Your task to perform on an android device: toggle translation in the chrome app Image 0: 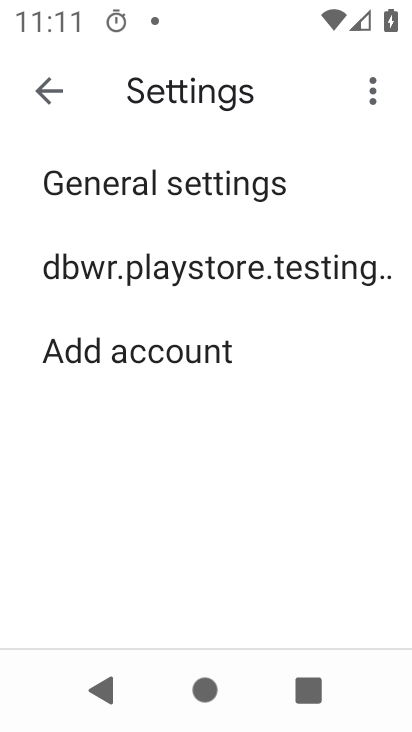
Step 0: press home button
Your task to perform on an android device: toggle translation in the chrome app Image 1: 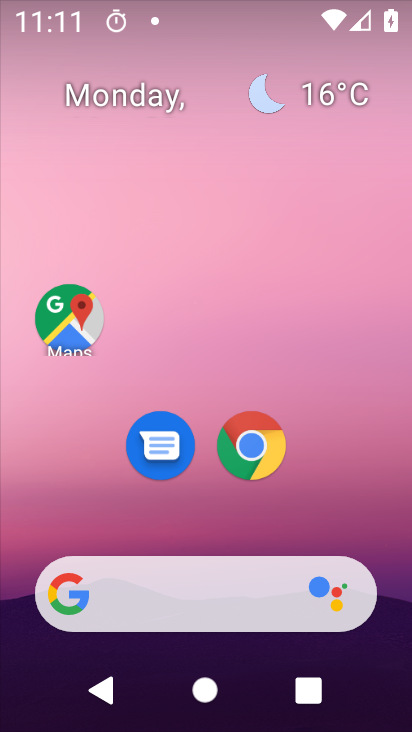
Step 1: click (264, 412)
Your task to perform on an android device: toggle translation in the chrome app Image 2: 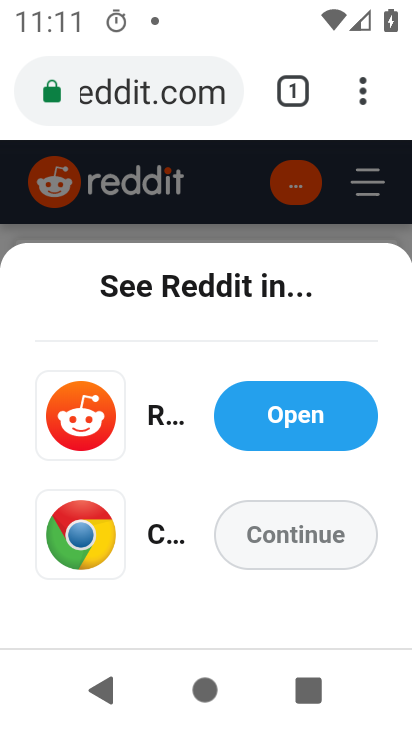
Step 2: click (365, 83)
Your task to perform on an android device: toggle translation in the chrome app Image 3: 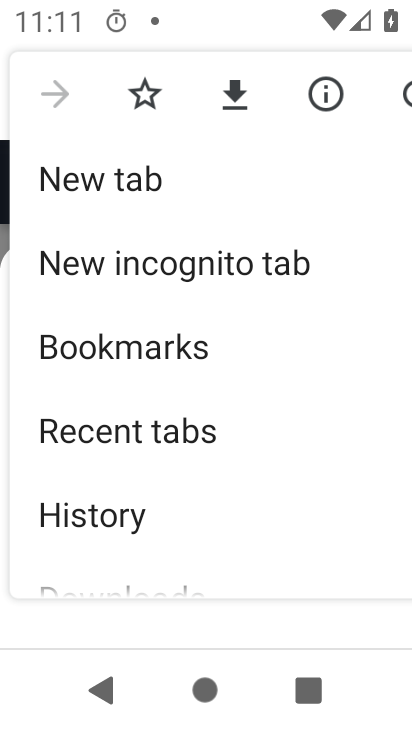
Step 3: drag from (178, 432) to (180, 70)
Your task to perform on an android device: toggle translation in the chrome app Image 4: 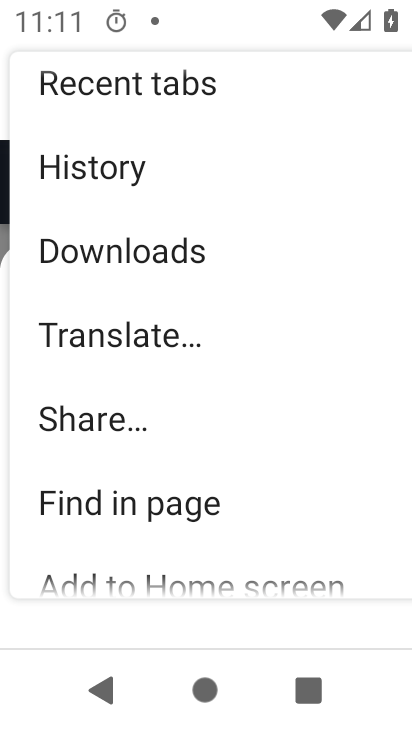
Step 4: click (159, 338)
Your task to perform on an android device: toggle translation in the chrome app Image 5: 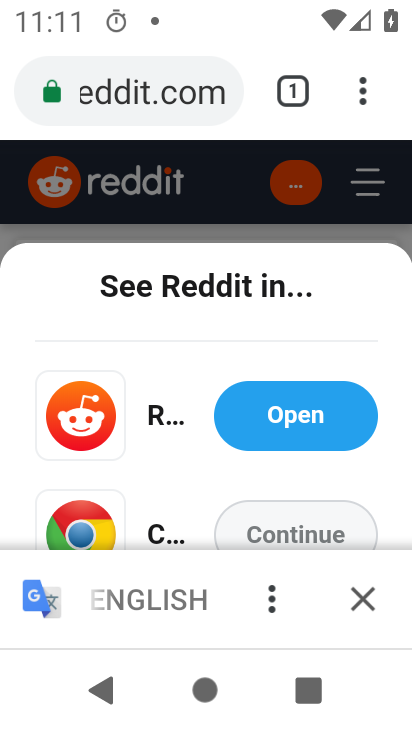
Step 5: click (370, 100)
Your task to perform on an android device: toggle translation in the chrome app Image 6: 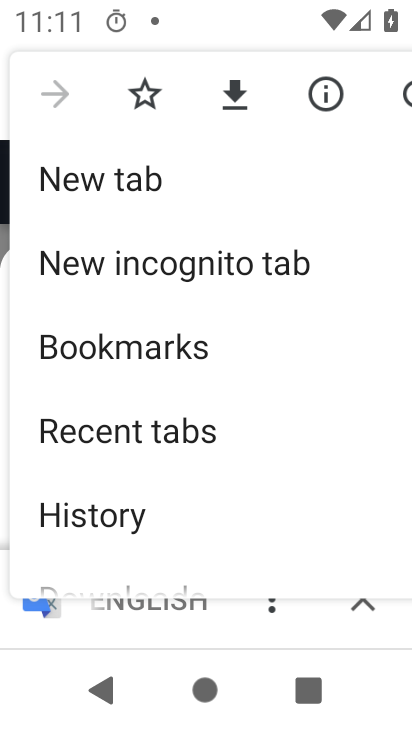
Step 6: drag from (220, 492) to (225, 1)
Your task to perform on an android device: toggle translation in the chrome app Image 7: 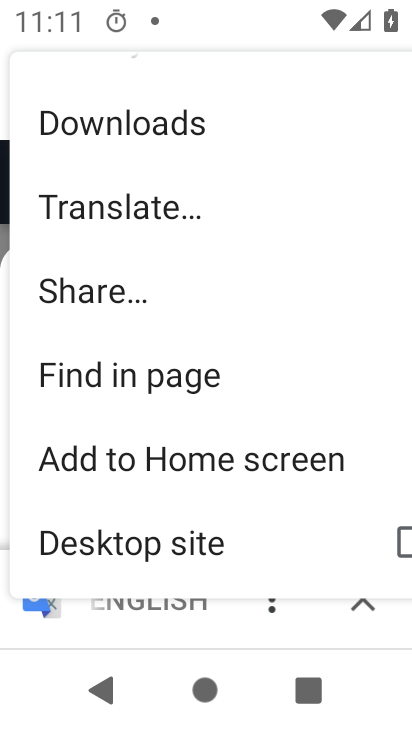
Step 7: drag from (184, 480) to (182, 79)
Your task to perform on an android device: toggle translation in the chrome app Image 8: 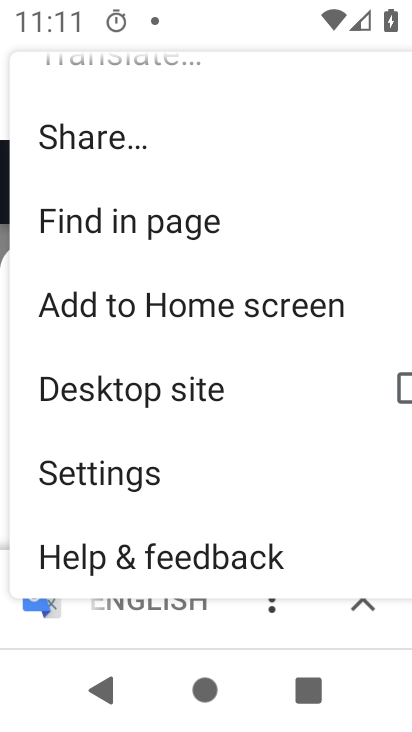
Step 8: click (133, 477)
Your task to perform on an android device: toggle translation in the chrome app Image 9: 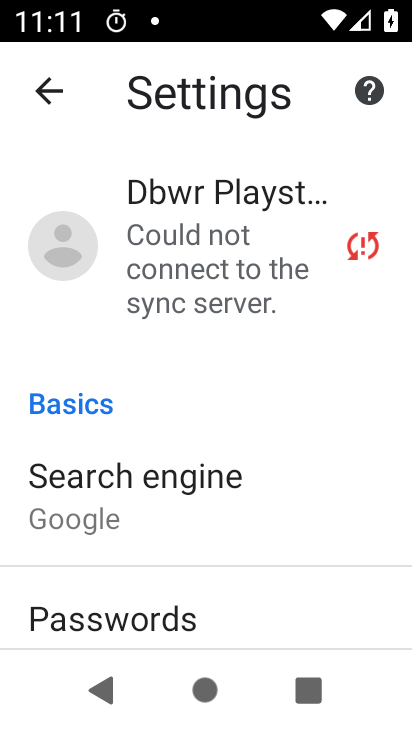
Step 9: drag from (168, 555) to (214, 98)
Your task to perform on an android device: toggle translation in the chrome app Image 10: 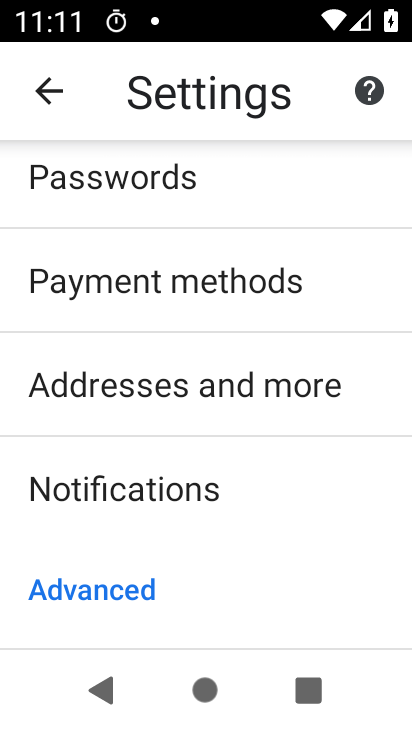
Step 10: drag from (253, 551) to (267, 169)
Your task to perform on an android device: toggle translation in the chrome app Image 11: 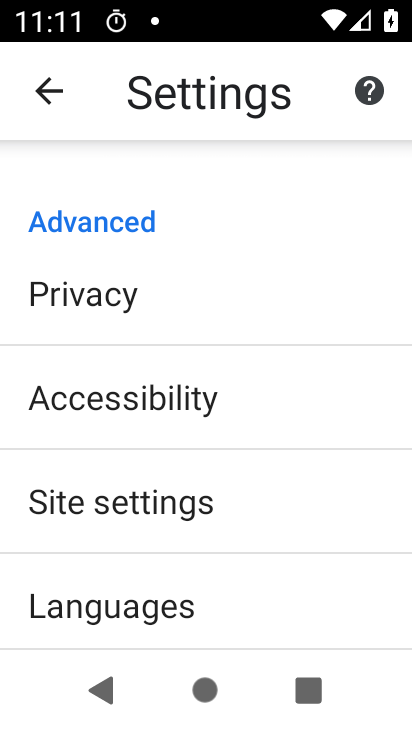
Step 11: drag from (206, 559) to (206, 403)
Your task to perform on an android device: toggle translation in the chrome app Image 12: 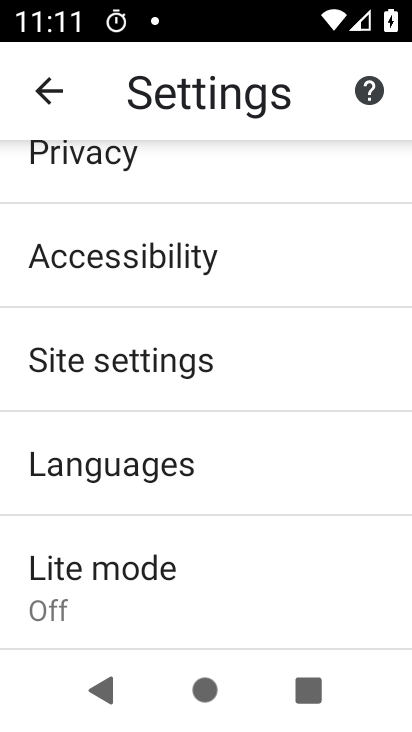
Step 12: click (134, 486)
Your task to perform on an android device: toggle translation in the chrome app Image 13: 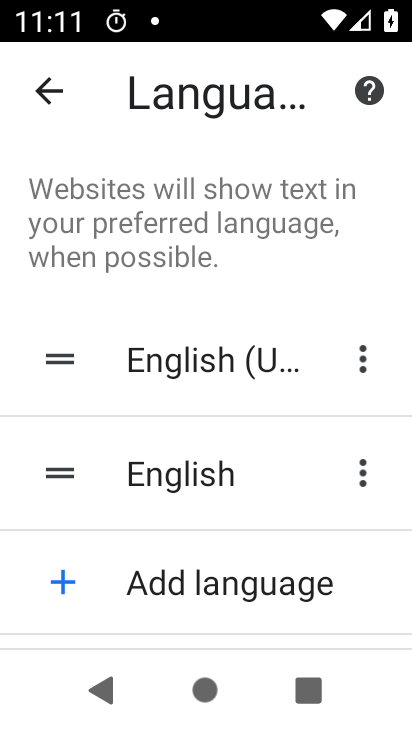
Step 13: drag from (258, 581) to (269, 27)
Your task to perform on an android device: toggle translation in the chrome app Image 14: 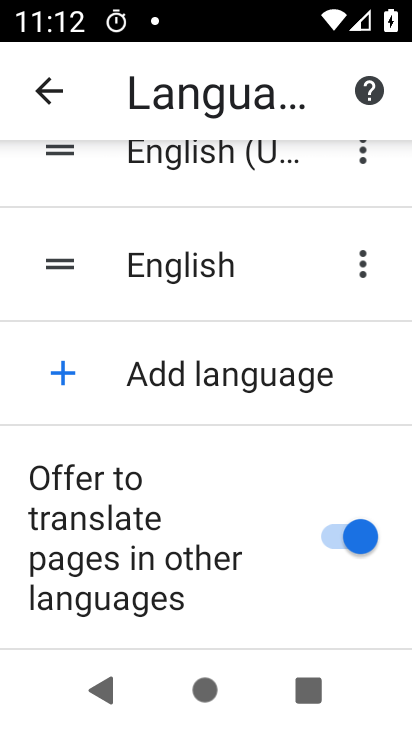
Step 14: click (321, 537)
Your task to perform on an android device: toggle translation in the chrome app Image 15: 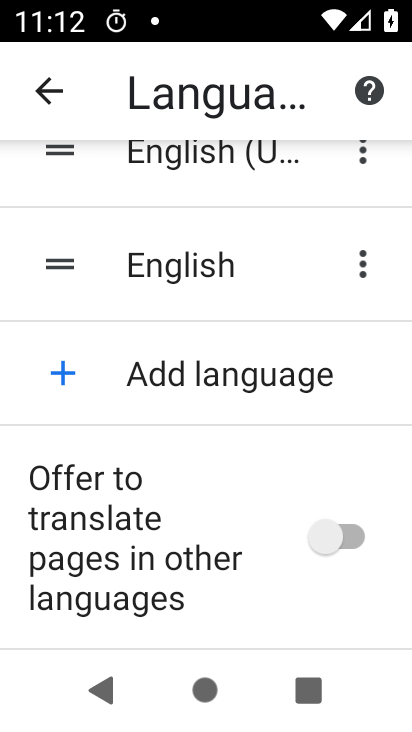
Step 15: task complete